Your task to perform on an android device: open a new tab in the chrome app Image 0: 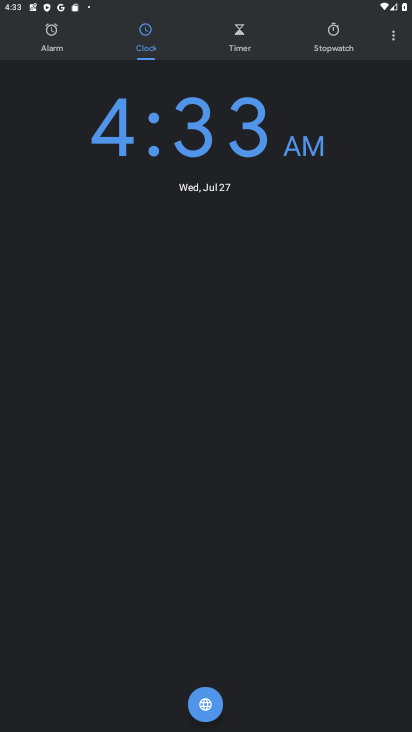
Step 0: press home button
Your task to perform on an android device: open a new tab in the chrome app Image 1: 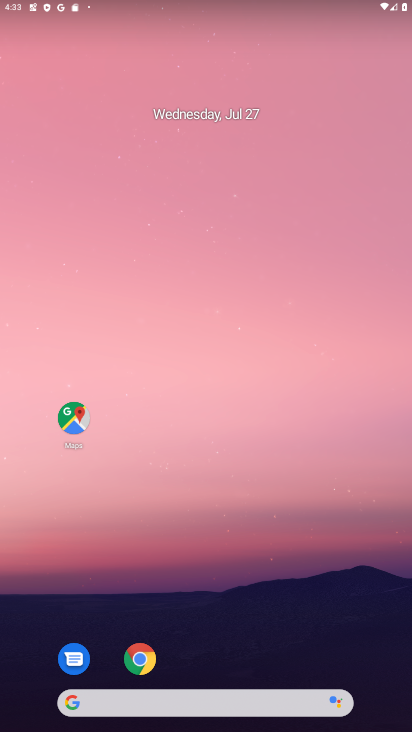
Step 1: click (144, 651)
Your task to perform on an android device: open a new tab in the chrome app Image 2: 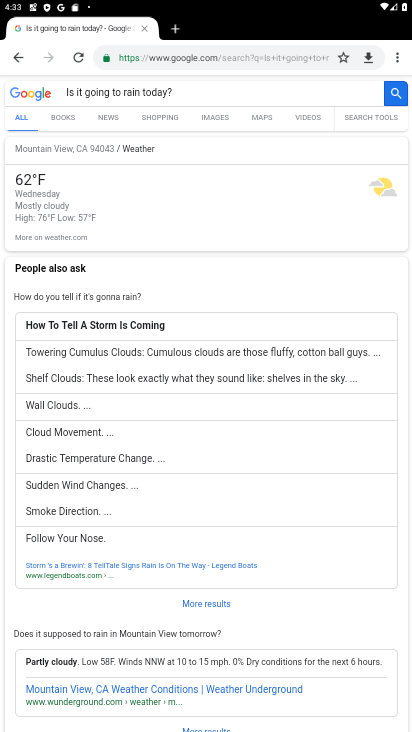
Step 2: click (393, 50)
Your task to perform on an android device: open a new tab in the chrome app Image 3: 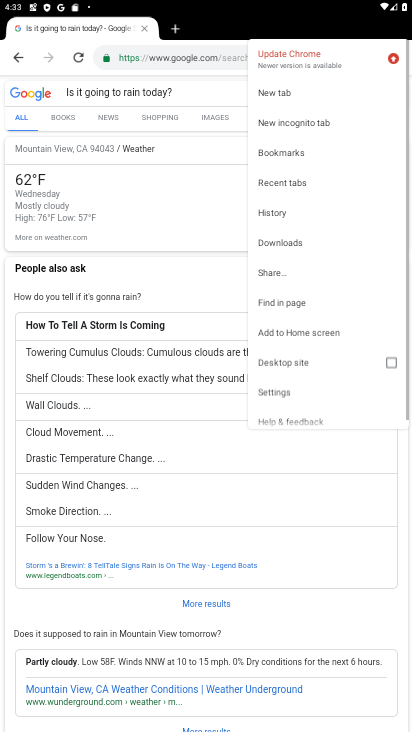
Step 3: click (312, 91)
Your task to perform on an android device: open a new tab in the chrome app Image 4: 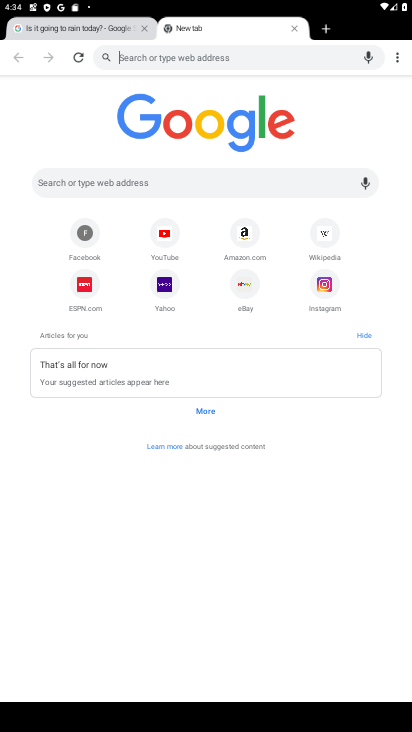
Step 4: task complete